Your task to perform on an android device: Open Android settings Image 0: 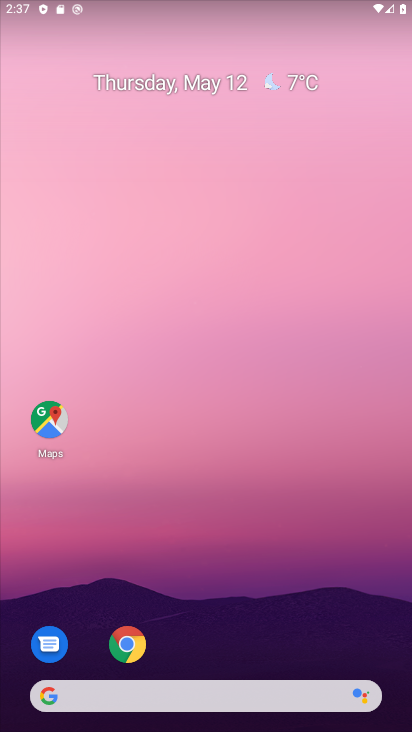
Step 0: drag from (231, 664) to (305, 159)
Your task to perform on an android device: Open Android settings Image 1: 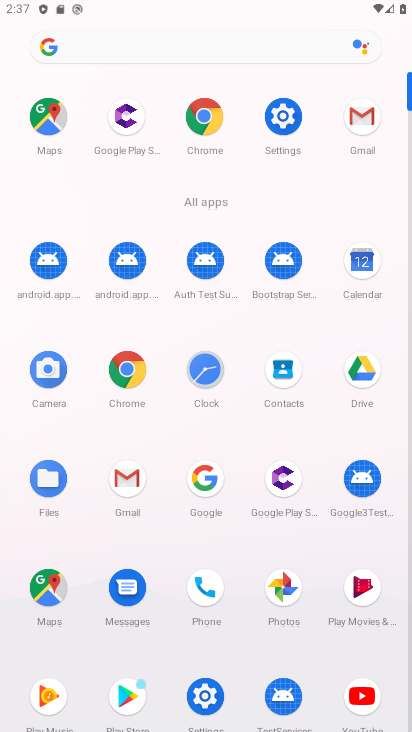
Step 1: drag from (187, 611) to (234, 384)
Your task to perform on an android device: Open Android settings Image 2: 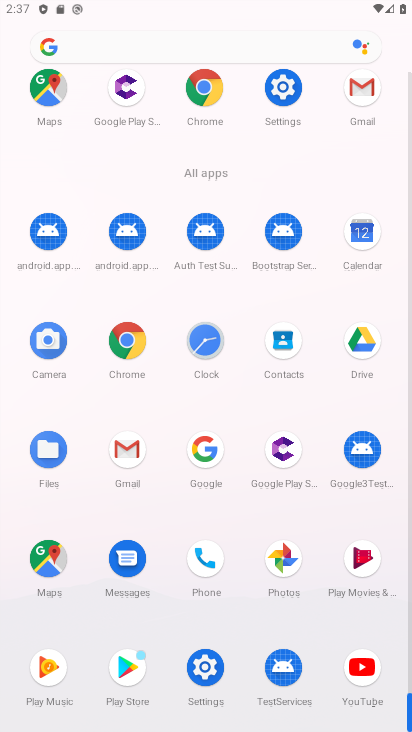
Step 2: click (211, 680)
Your task to perform on an android device: Open Android settings Image 3: 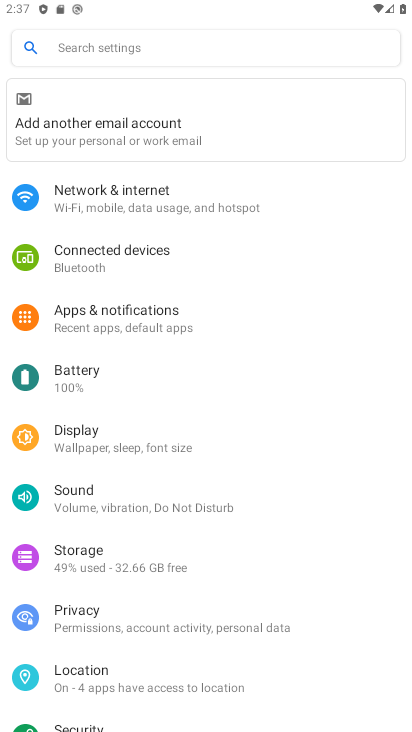
Step 3: task complete